Your task to perform on an android device: turn on translation in the chrome app Image 0: 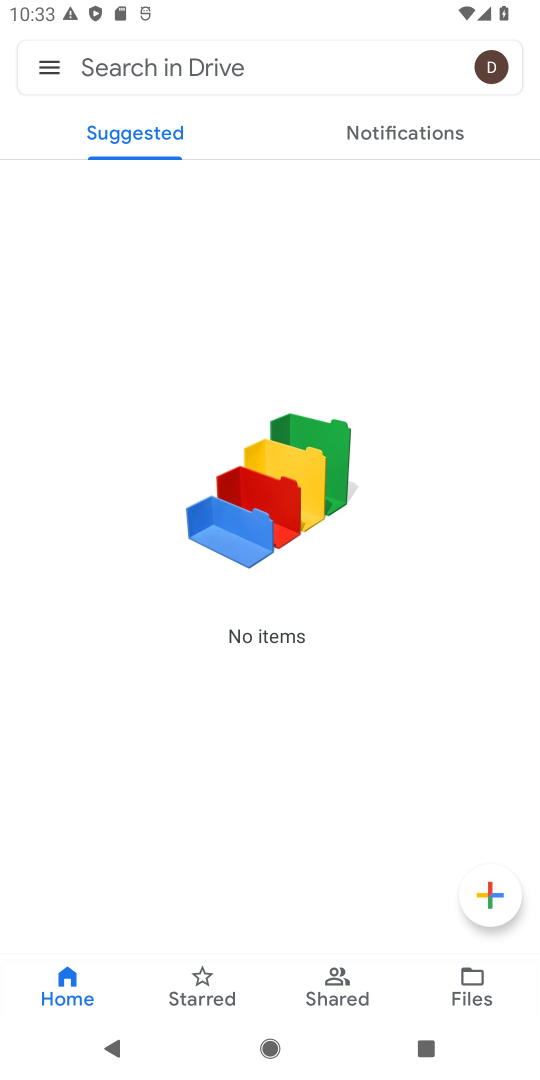
Step 0: press back button
Your task to perform on an android device: turn on translation in the chrome app Image 1: 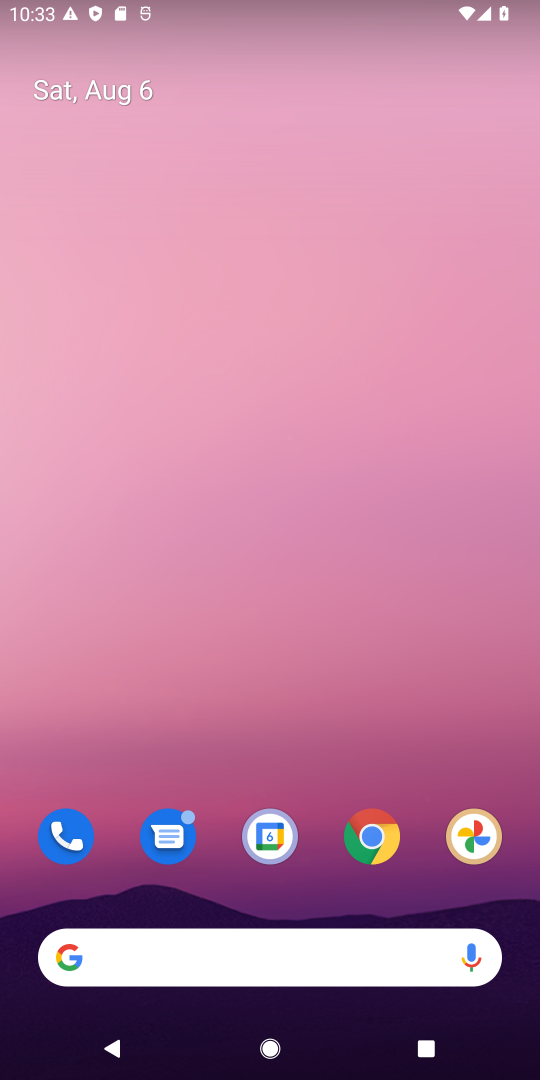
Step 1: click (365, 848)
Your task to perform on an android device: turn on translation in the chrome app Image 2: 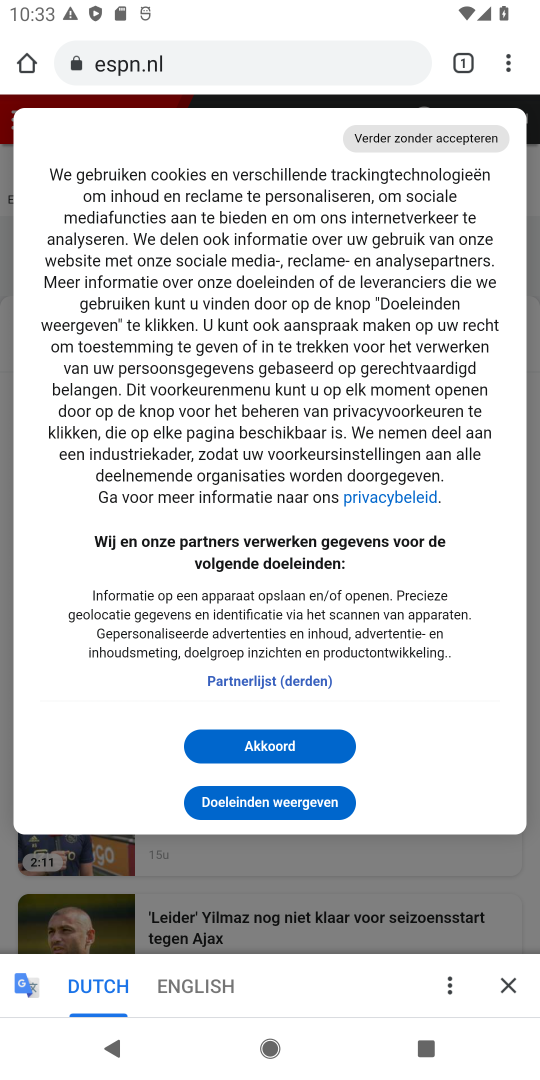
Step 2: click (501, 84)
Your task to perform on an android device: turn on translation in the chrome app Image 3: 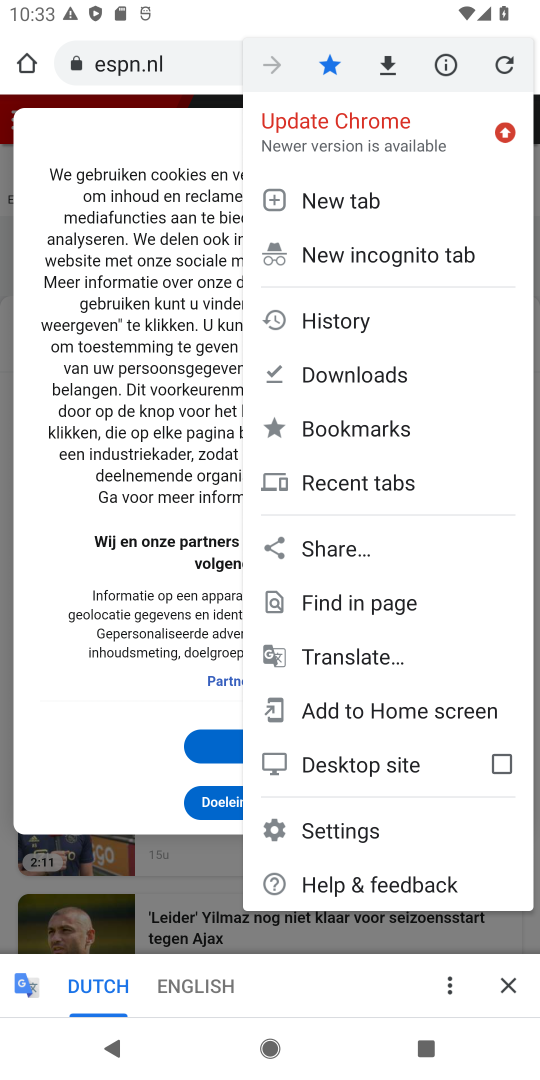
Step 3: click (319, 837)
Your task to perform on an android device: turn on translation in the chrome app Image 4: 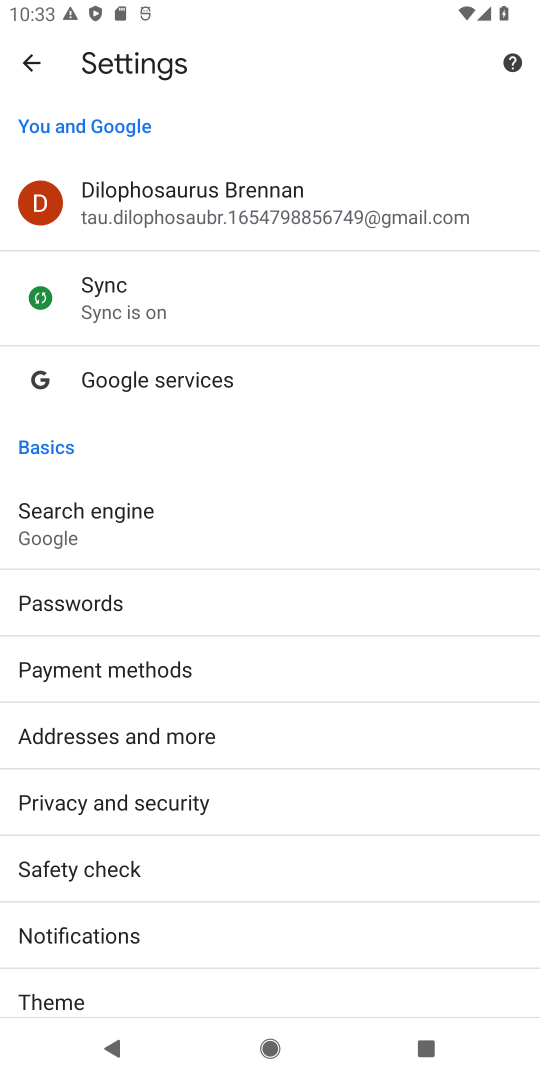
Step 4: drag from (115, 905) to (190, 456)
Your task to perform on an android device: turn on translation in the chrome app Image 5: 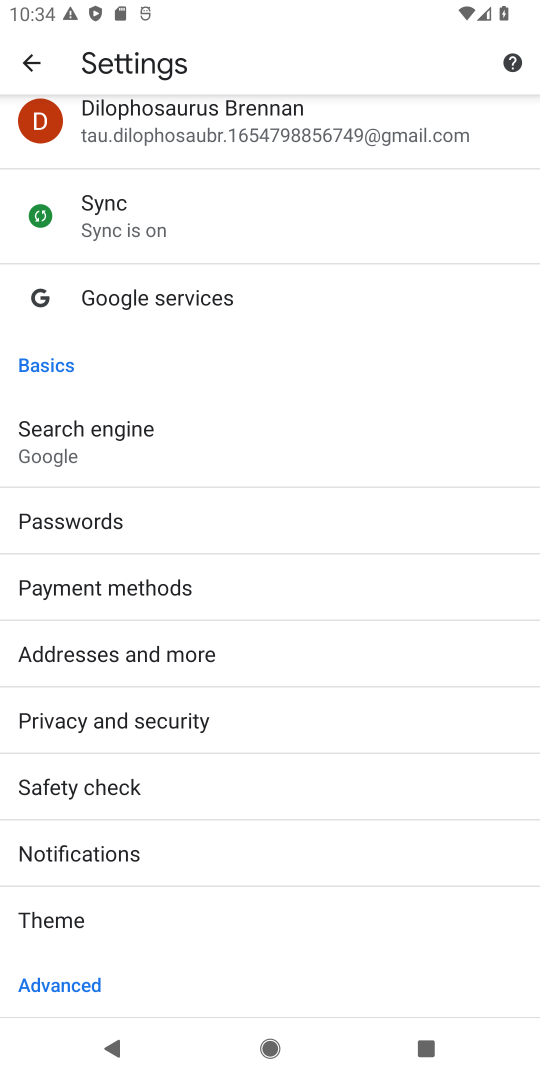
Step 5: drag from (284, 719) to (320, 416)
Your task to perform on an android device: turn on translation in the chrome app Image 6: 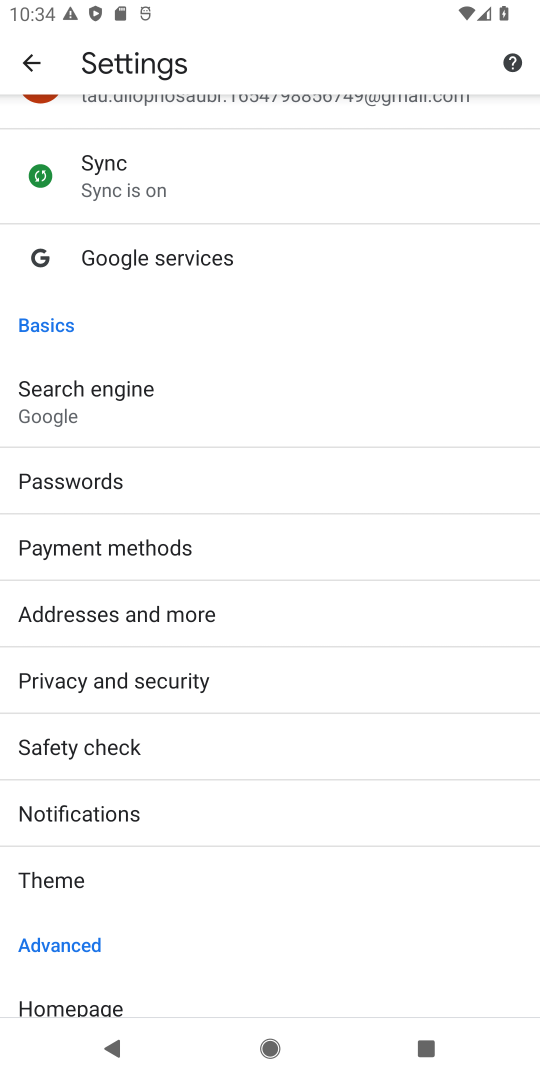
Step 6: drag from (135, 776) to (206, 380)
Your task to perform on an android device: turn on translation in the chrome app Image 7: 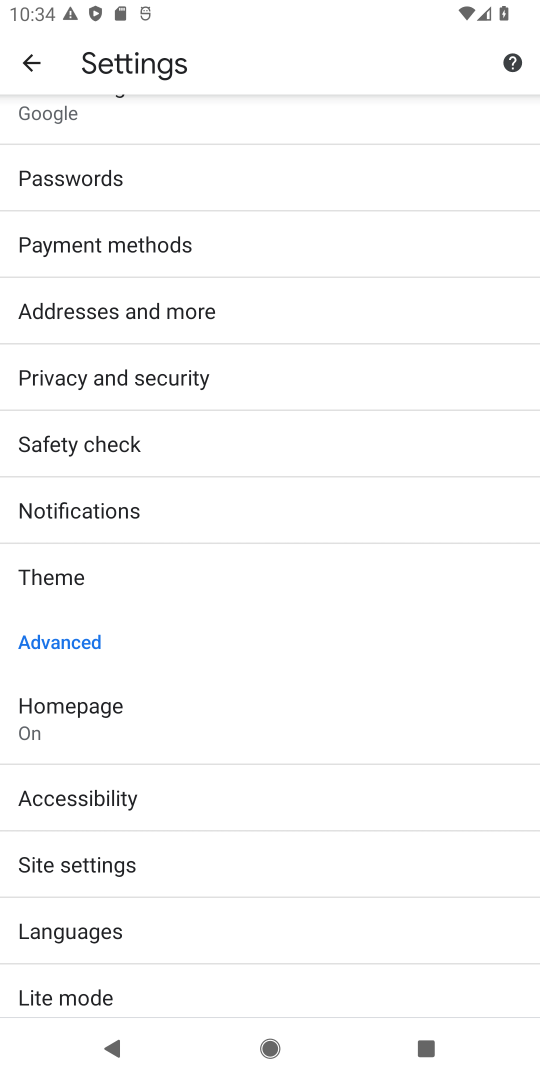
Step 7: click (46, 926)
Your task to perform on an android device: turn on translation in the chrome app Image 8: 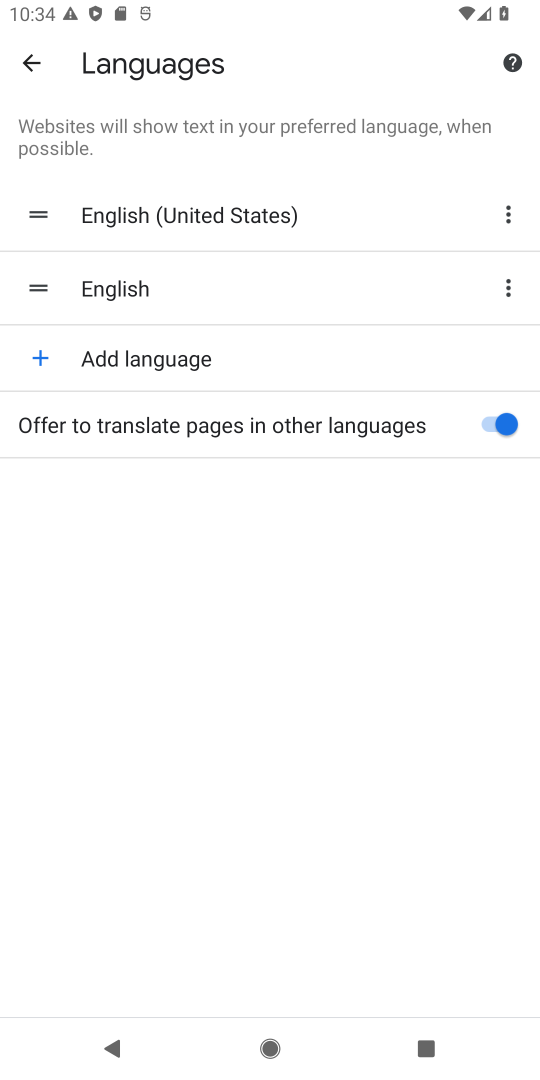
Step 8: task complete